Your task to perform on an android device: Turn on the flashlight Image 0: 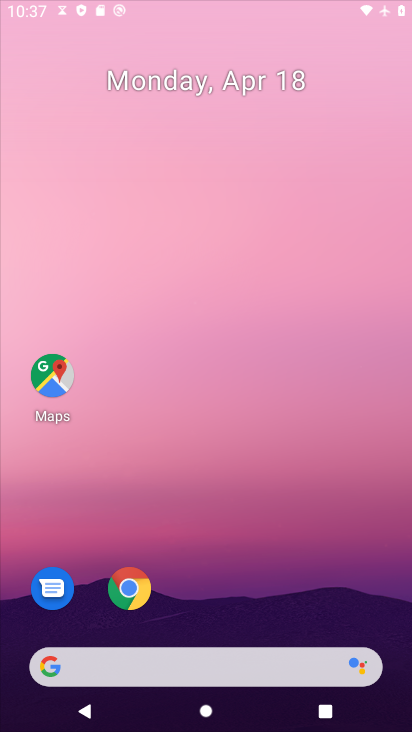
Step 0: click (149, 22)
Your task to perform on an android device: Turn on the flashlight Image 1: 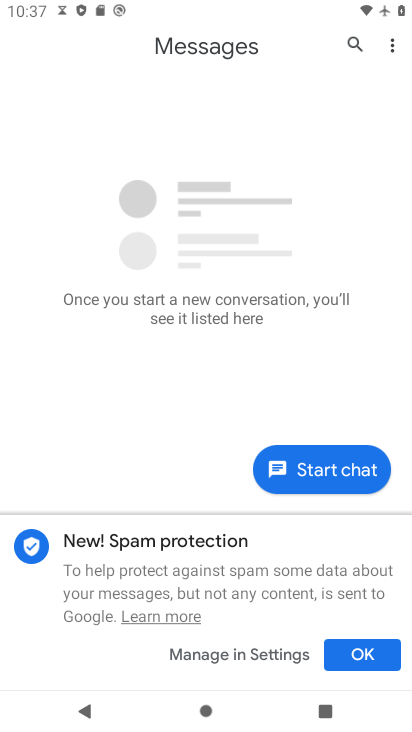
Step 1: press back button
Your task to perform on an android device: Turn on the flashlight Image 2: 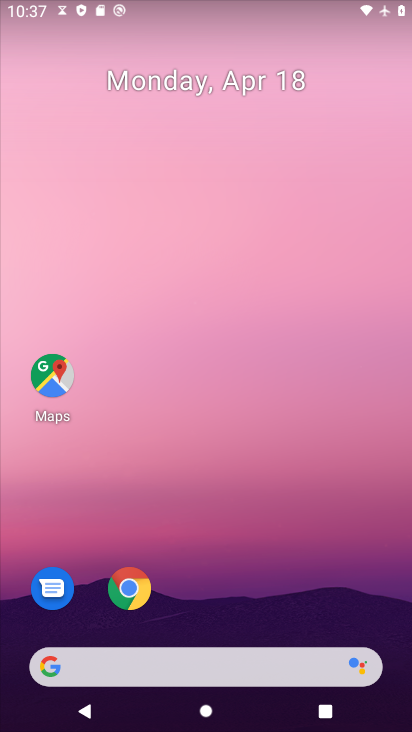
Step 2: drag from (257, 560) to (72, 44)
Your task to perform on an android device: Turn on the flashlight Image 3: 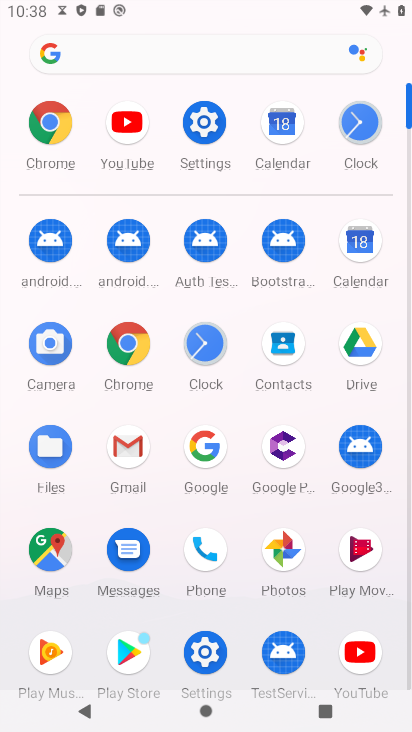
Step 3: click (202, 125)
Your task to perform on an android device: Turn on the flashlight Image 4: 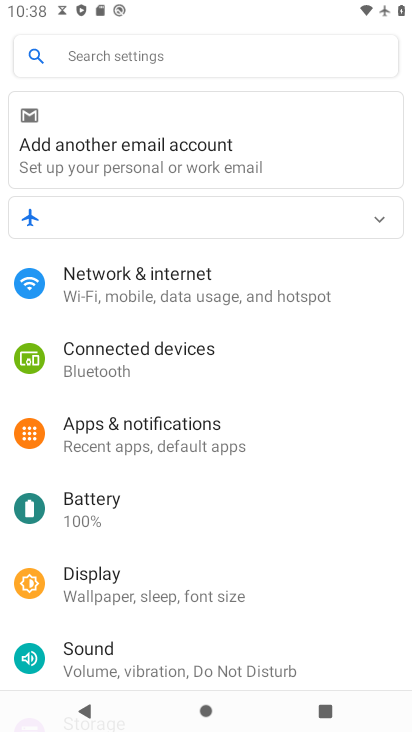
Step 4: click (222, 262)
Your task to perform on an android device: Turn on the flashlight Image 5: 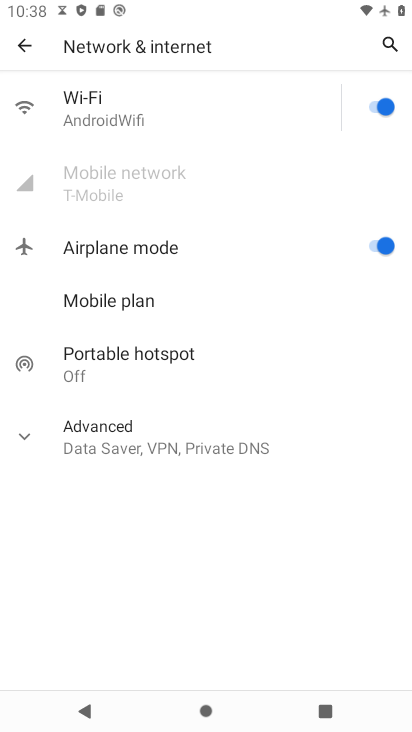
Step 5: click (21, 437)
Your task to perform on an android device: Turn on the flashlight Image 6: 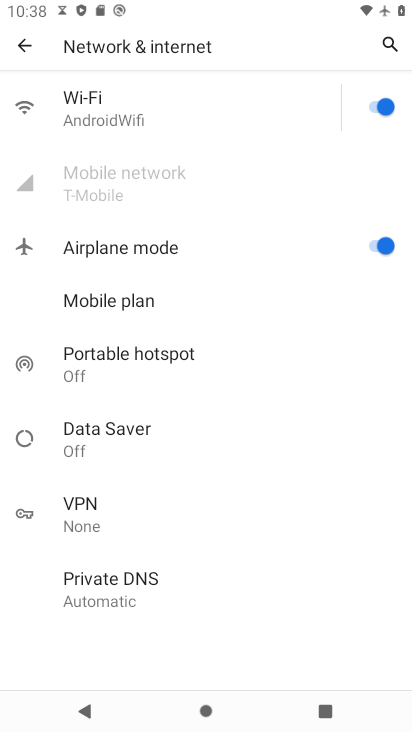
Step 6: drag from (200, 461) to (175, 105)
Your task to perform on an android device: Turn on the flashlight Image 7: 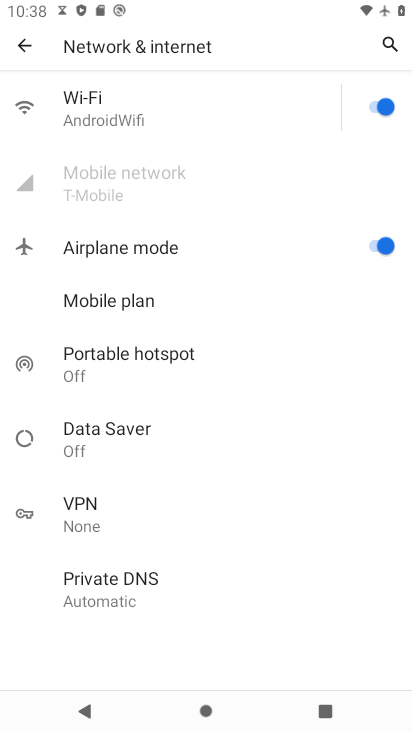
Step 7: drag from (200, 217) to (257, 589)
Your task to perform on an android device: Turn on the flashlight Image 8: 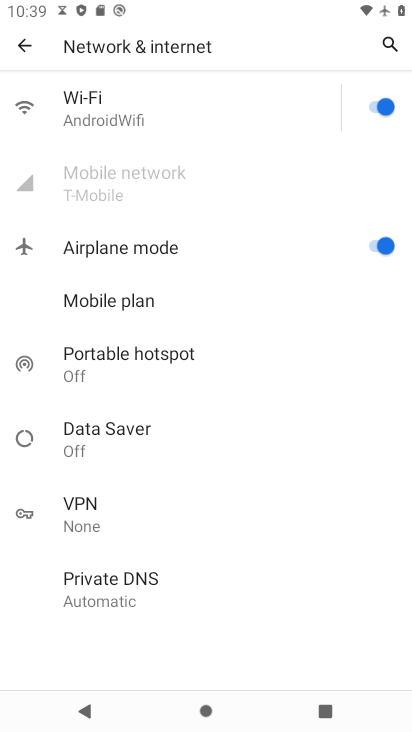
Step 8: click (19, 46)
Your task to perform on an android device: Turn on the flashlight Image 9: 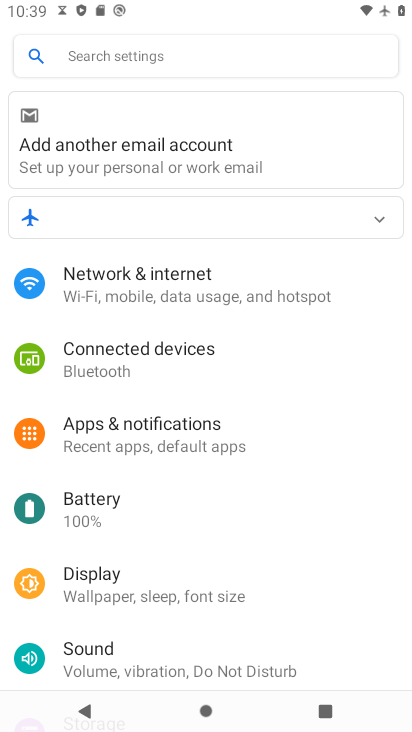
Step 9: drag from (291, 559) to (267, 196)
Your task to perform on an android device: Turn on the flashlight Image 10: 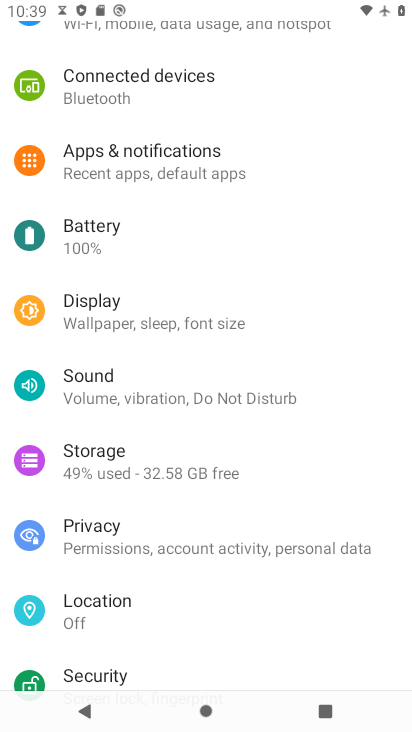
Step 10: drag from (200, 527) to (170, 139)
Your task to perform on an android device: Turn on the flashlight Image 11: 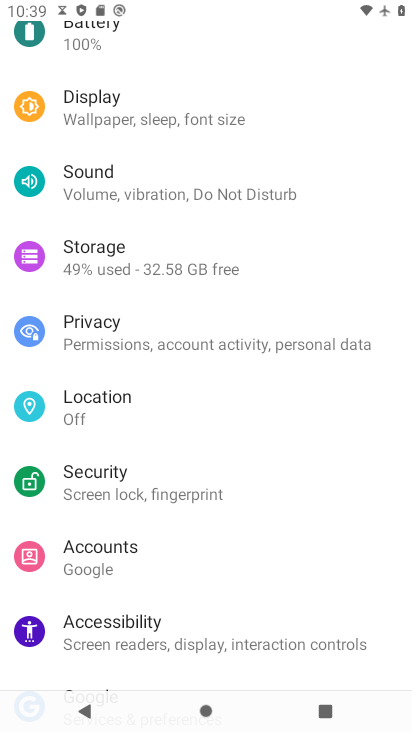
Step 11: click (217, 110)
Your task to perform on an android device: Turn on the flashlight Image 12: 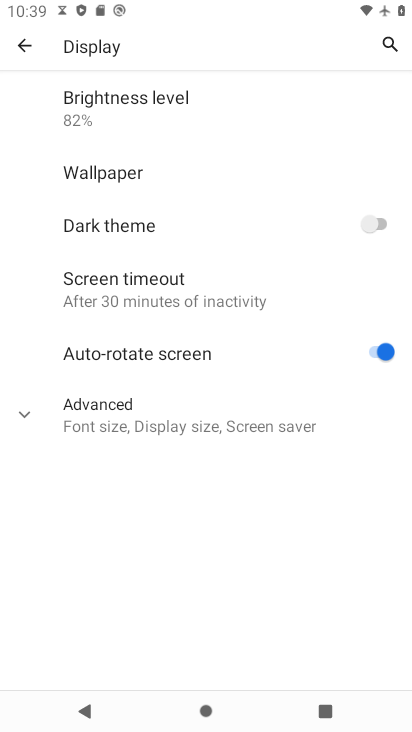
Step 12: click (21, 46)
Your task to perform on an android device: Turn on the flashlight Image 13: 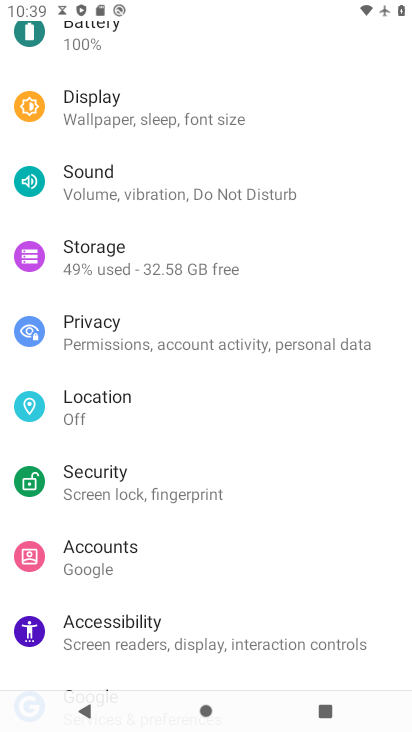
Step 13: task complete